Your task to perform on an android device: turn on javascript in the chrome app Image 0: 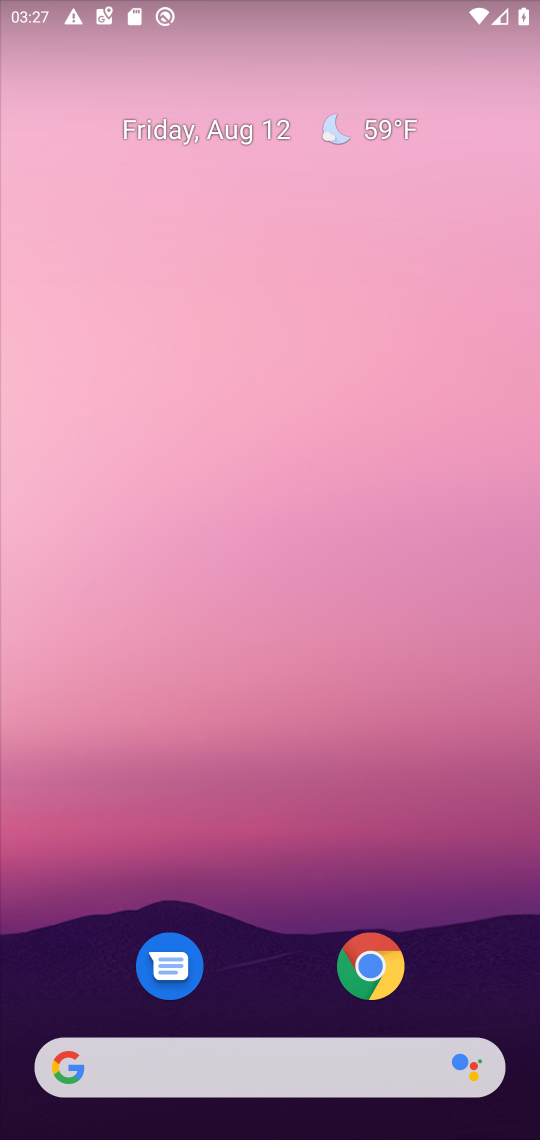
Step 0: drag from (288, 890) to (301, 72)
Your task to perform on an android device: turn on javascript in the chrome app Image 1: 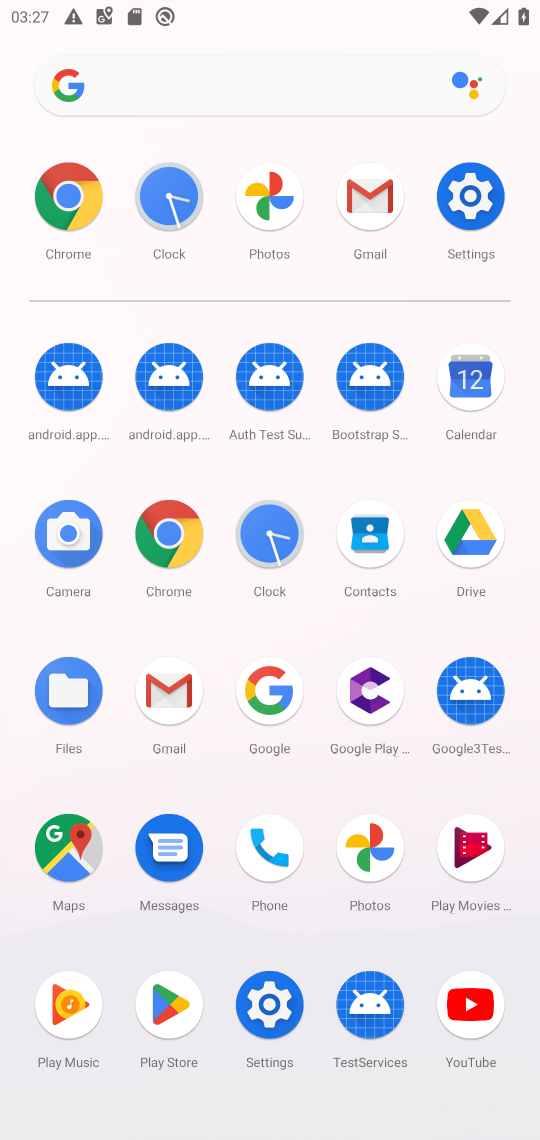
Step 1: click (261, 997)
Your task to perform on an android device: turn on javascript in the chrome app Image 2: 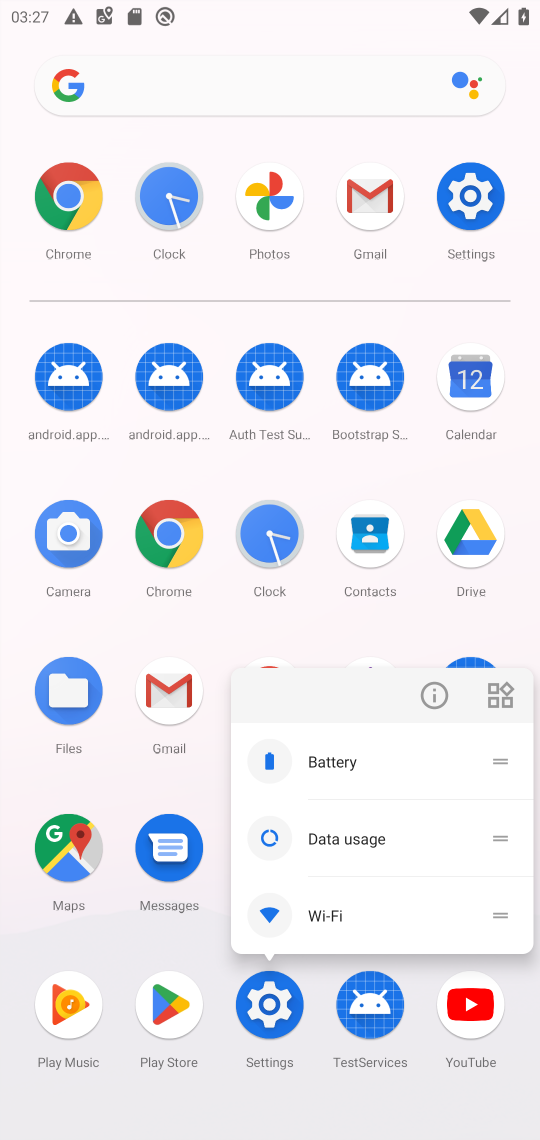
Step 2: click (274, 1004)
Your task to perform on an android device: turn on javascript in the chrome app Image 3: 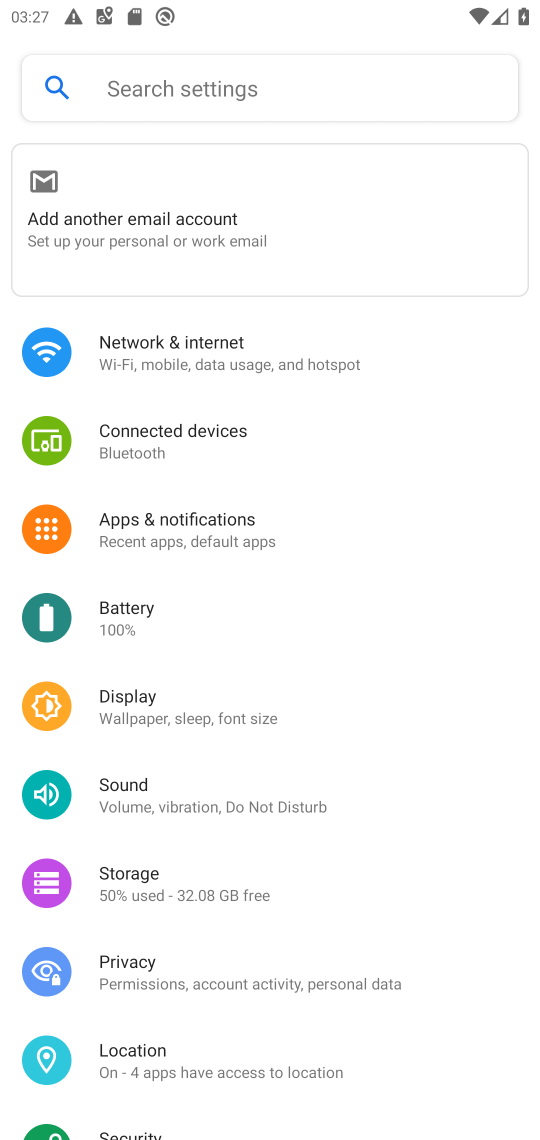
Step 3: drag from (296, 1036) to (350, 322)
Your task to perform on an android device: turn on javascript in the chrome app Image 4: 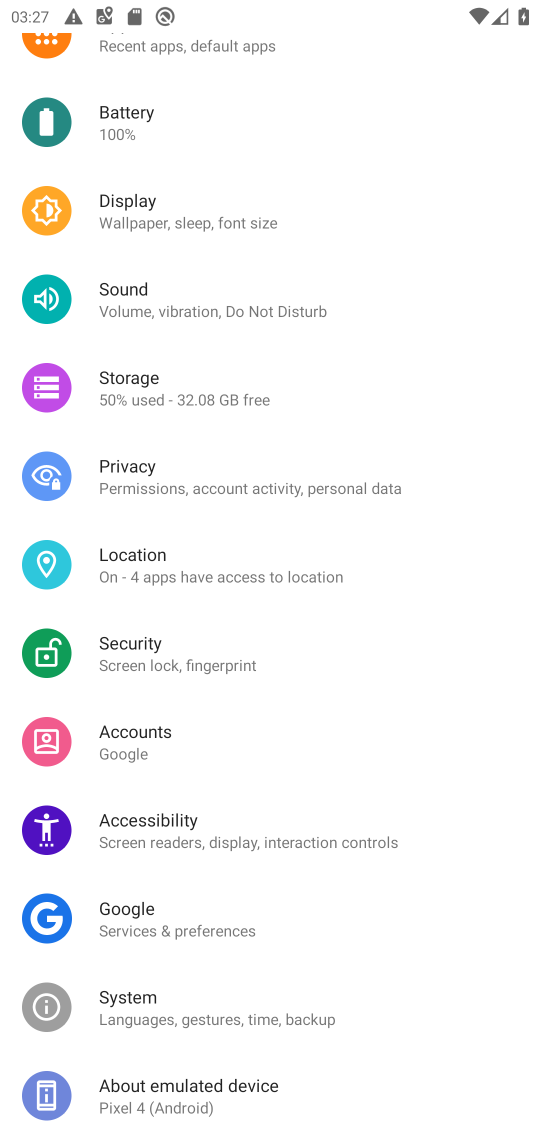
Step 4: drag from (291, 1024) to (321, 593)
Your task to perform on an android device: turn on javascript in the chrome app Image 5: 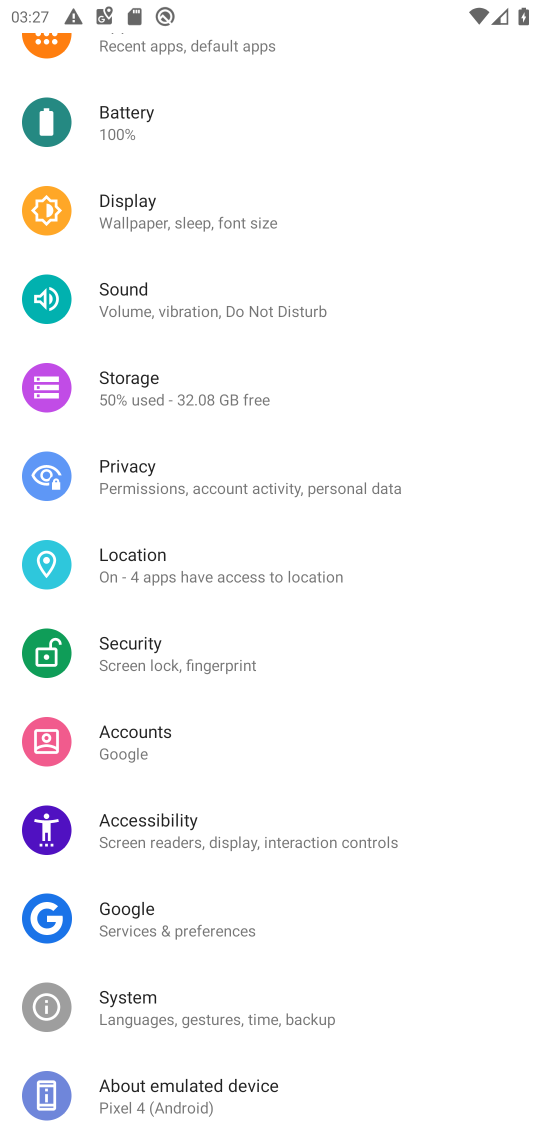
Step 5: press home button
Your task to perform on an android device: turn on javascript in the chrome app Image 6: 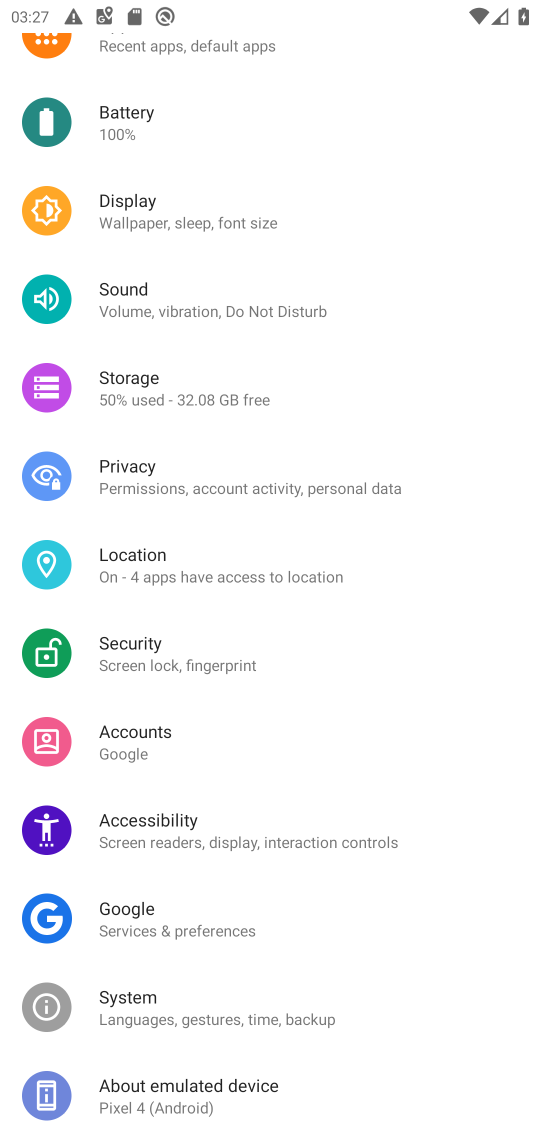
Step 6: press home button
Your task to perform on an android device: turn on javascript in the chrome app Image 7: 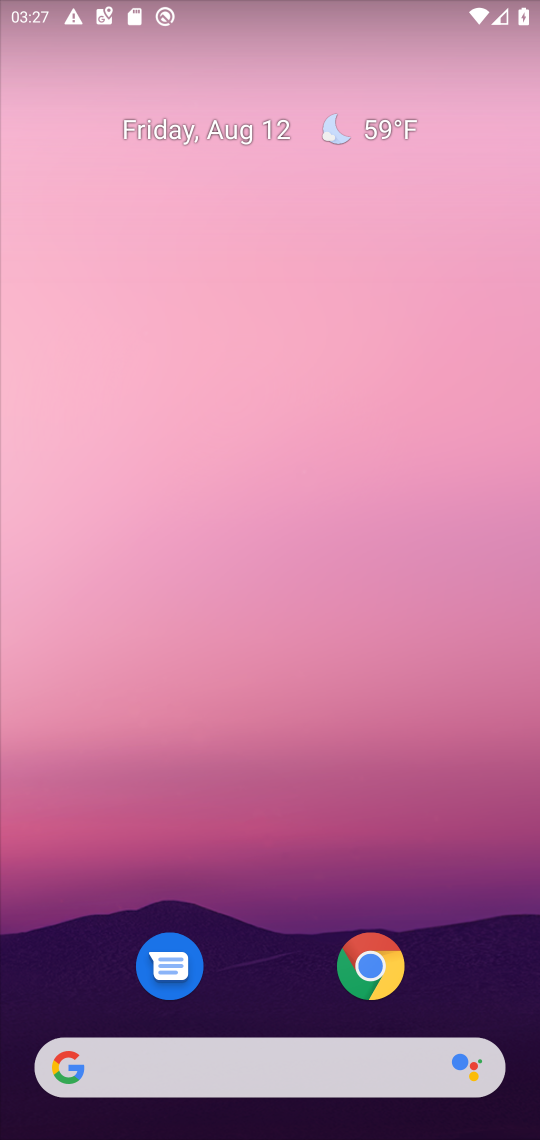
Step 7: press home button
Your task to perform on an android device: turn on javascript in the chrome app Image 8: 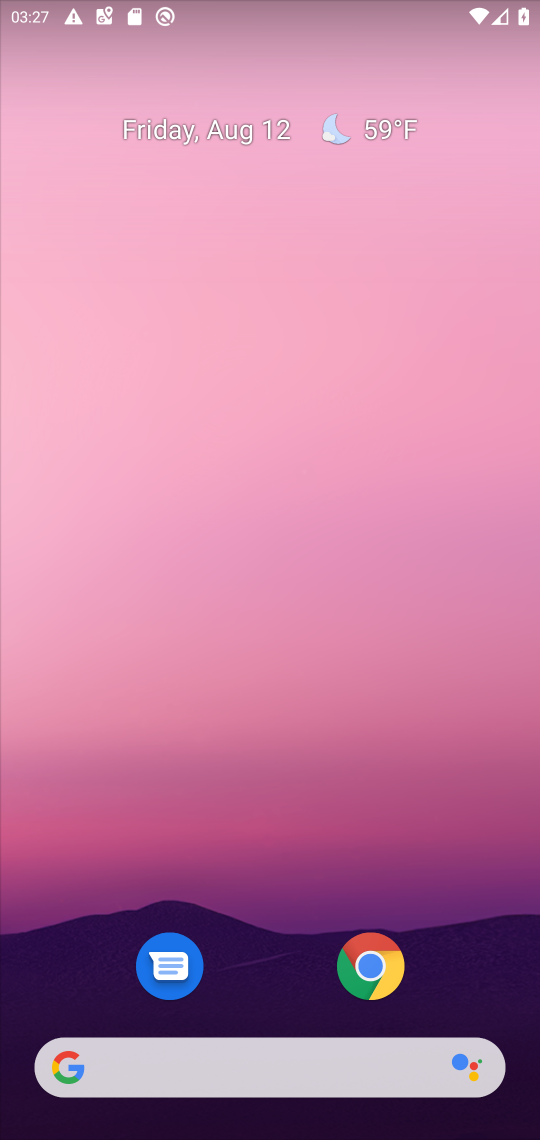
Step 8: drag from (264, 928) to (400, 132)
Your task to perform on an android device: turn on javascript in the chrome app Image 9: 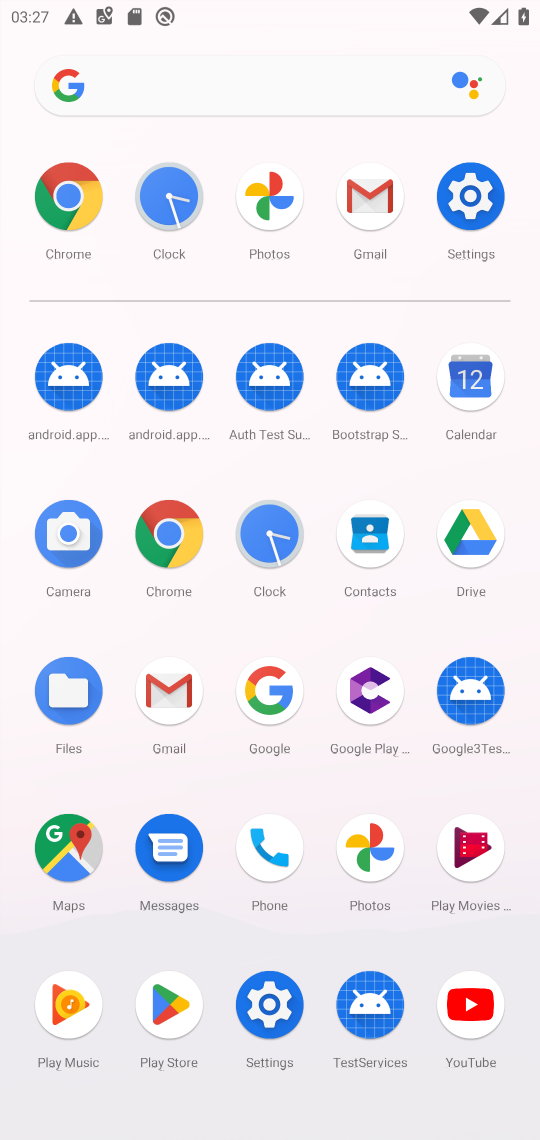
Step 9: click (162, 528)
Your task to perform on an android device: turn on javascript in the chrome app Image 10: 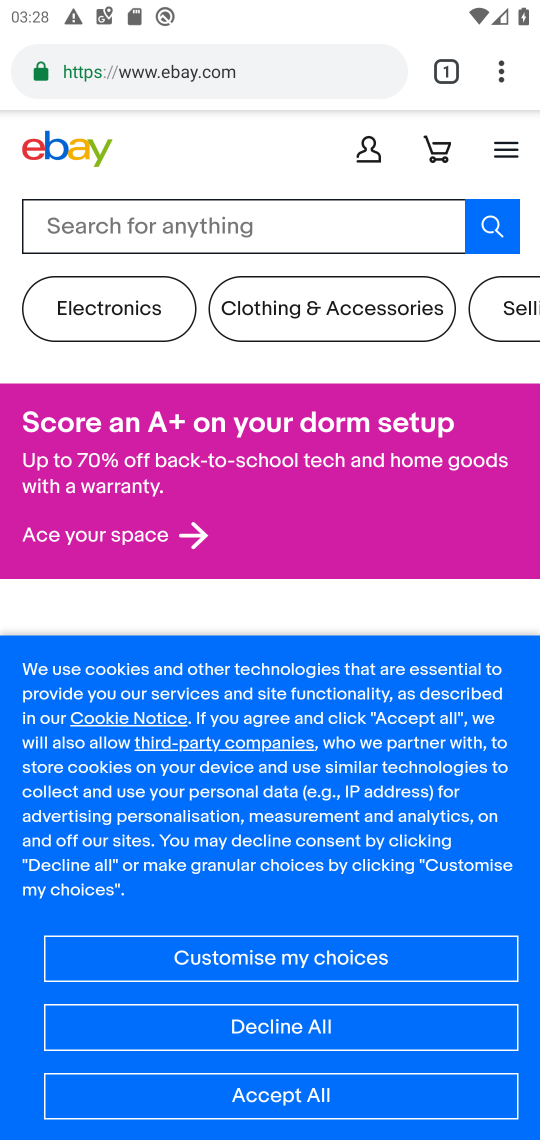
Step 10: drag from (508, 68) to (301, 860)
Your task to perform on an android device: turn on javascript in the chrome app Image 11: 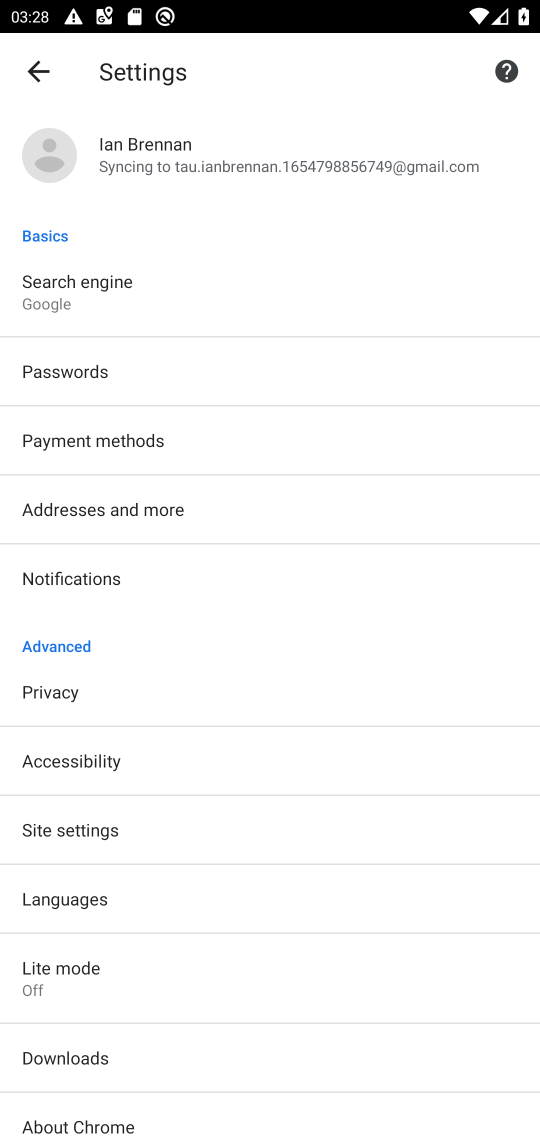
Step 11: click (101, 836)
Your task to perform on an android device: turn on javascript in the chrome app Image 12: 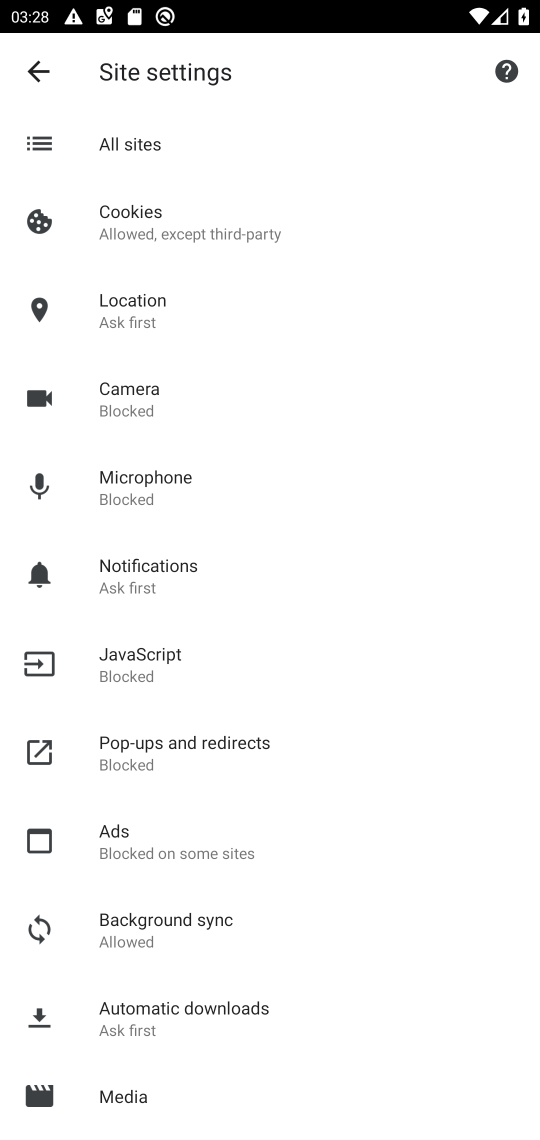
Step 12: click (151, 670)
Your task to perform on an android device: turn on javascript in the chrome app Image 13: 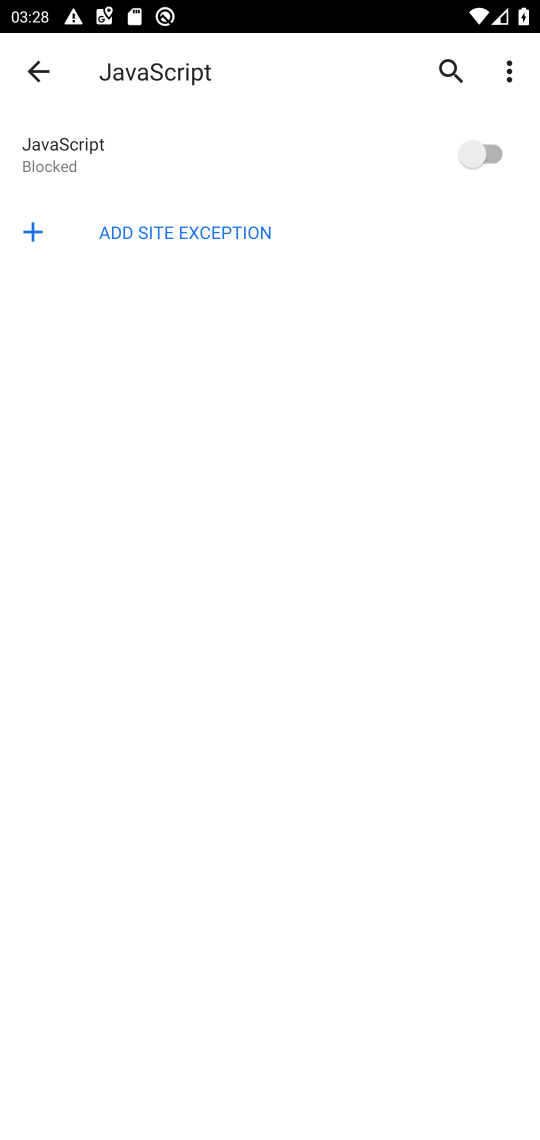
Step 13: click (512, 146)
Your task to perform on an android device: turn on javascript in the chrome app Image 14: 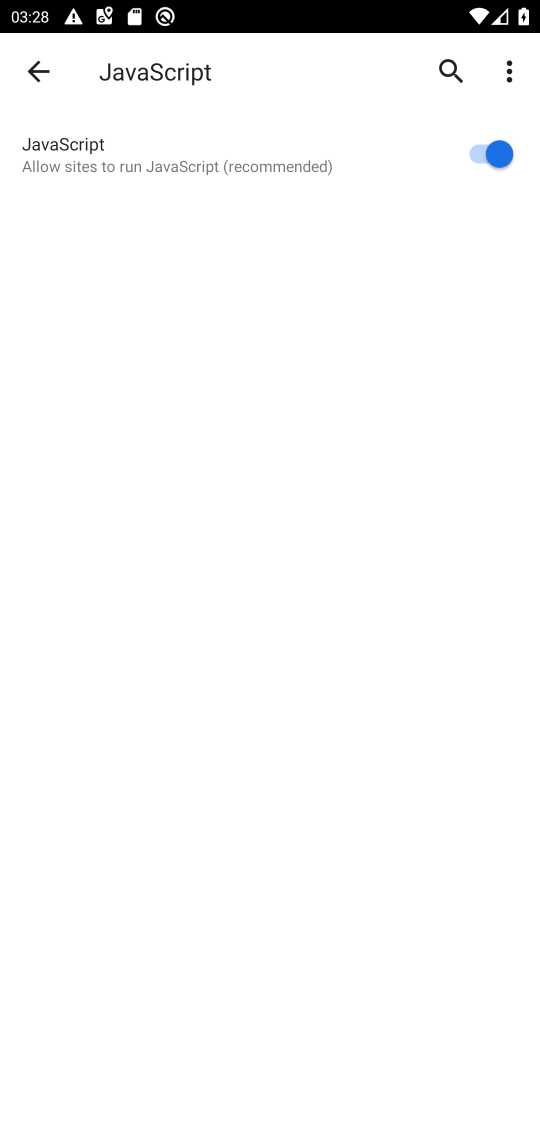
Step 14: task complete